Your task to perform on an android device: When is my next appointment? Image 0: 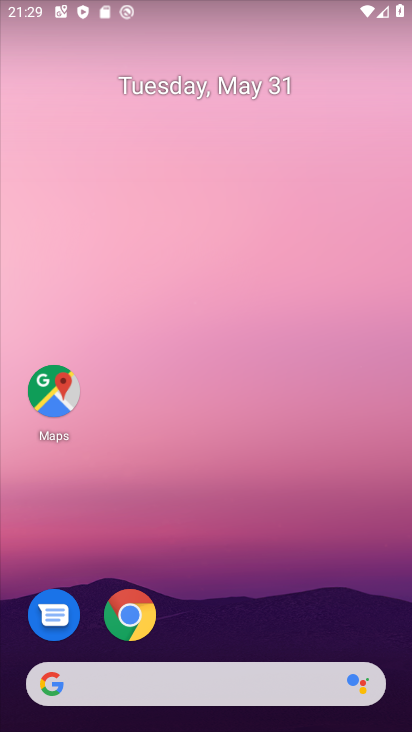
Step 0: press home button
Your task to perform on an android device: When is my next appointment? Image 1: 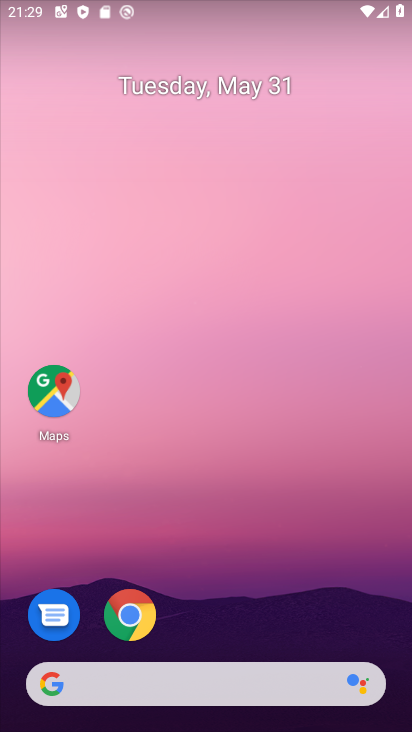
Step 1: drag from (216, 528) to (176, 96)
Your task to perform on an android device: When is my next appointment? Image 2: 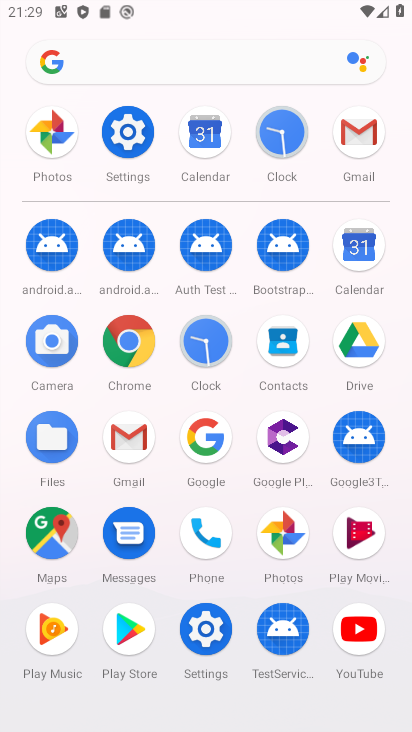
Step 2: click (352, 255)
Your task to perform on an android device: When is my next appointment? Image 3: 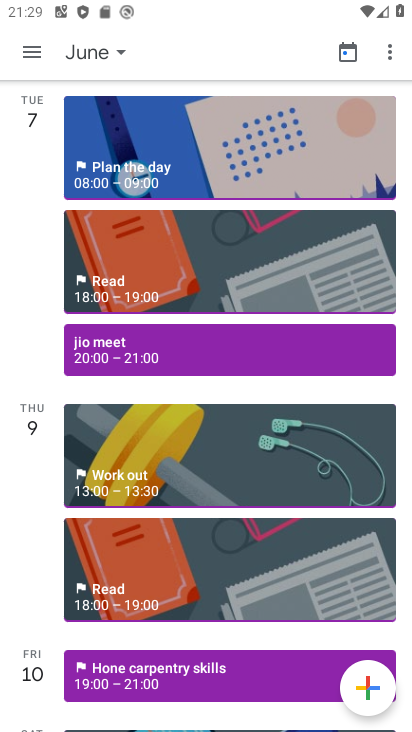
Step 3: click (25, 52)
Your task to perform on an android device: When is my next appointment? Image 4: 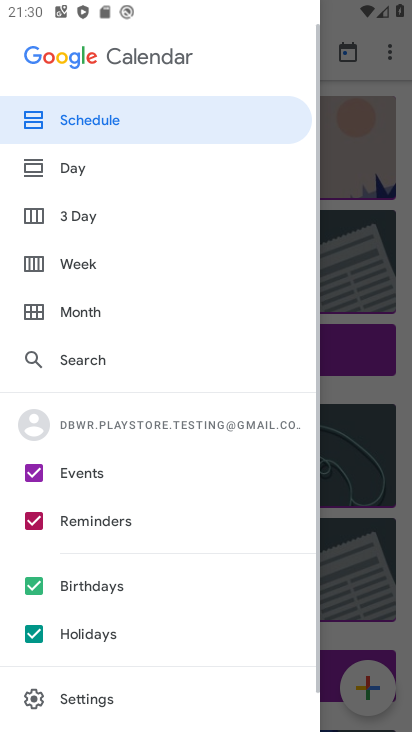
Step 4: click (97, 116)
Your task to perform on an android device: When is my next appointment? Image 5: 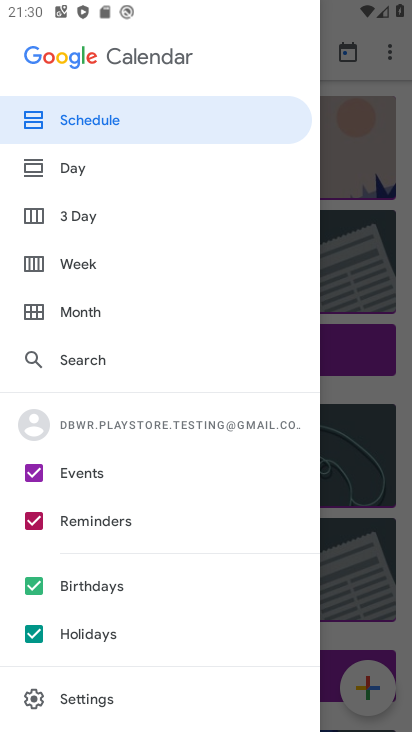
Step 5: click (151, 132)
Your task to perform on an android device: When is my next appointment? Image 6: 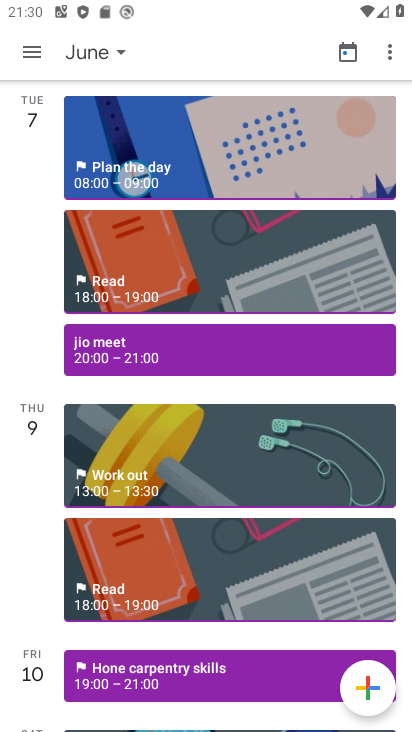
Step 6: task complete